Your task to perform on an android device: turn notification dots off Image 0: 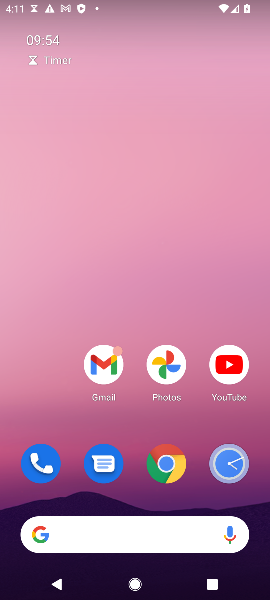
Step 0: drag from (97, 514) to (157, 98)
Your task to perform on an android device: turn notification dots off Image 1: 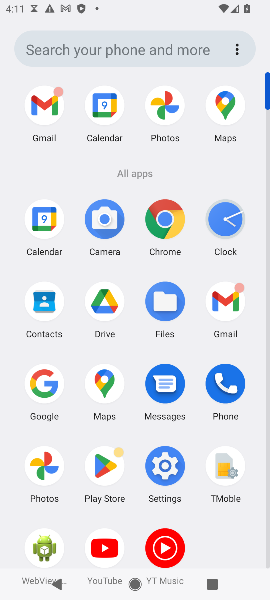
Step 1: click (163, 467)
Your task to perform on an android device: turn notification dots off Image 2: 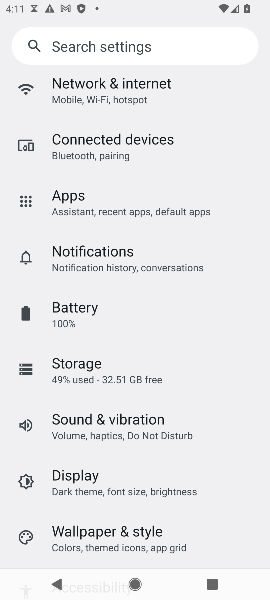
Step 2: click (113, 260)
Your task to perform on an android device: turn notification dots off Image 3: 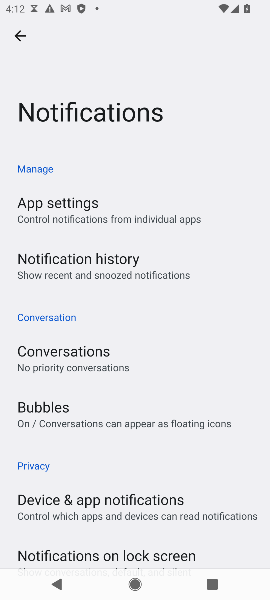
Step 3: drag from (87, 552) to (89, 195)
Your task to perform on an android device: turn notification dots off Image 4: 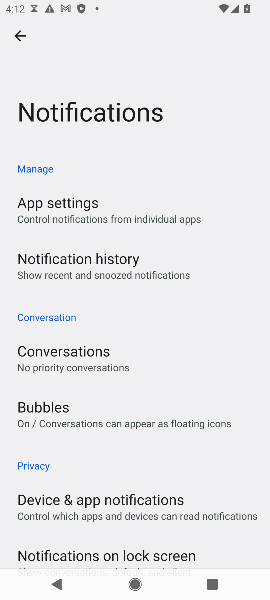
Step 4: drag from (129, 558) to (121, 172)
Your task to perform on an android device: turn notification dots off Image 5: 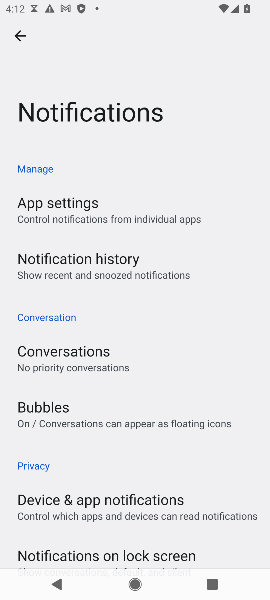
Step 5: drag from (103, 550) to (94, 218)
Your task to perform on an android device: turn notification dots off Image 6: 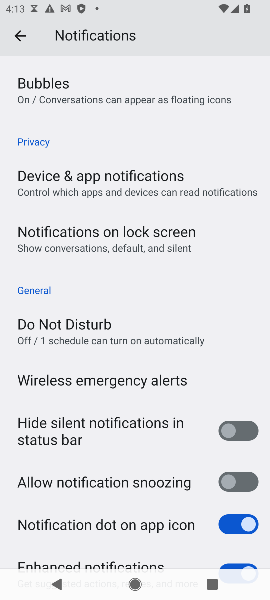
Step 6: click (238, 524)
Your task to perform on an android device: turn notification dots off Image 7: 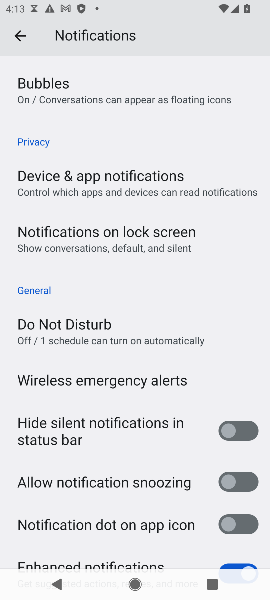
Step 7: task complete